Your task to perform on an android device: Open Google Maps Image 0: 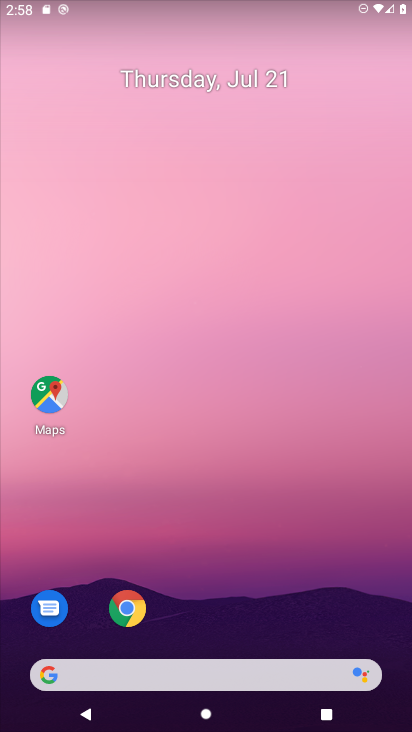
Step 0: click (52, 395)
Your task to perform on an android device: Open Google Maps Image 1: 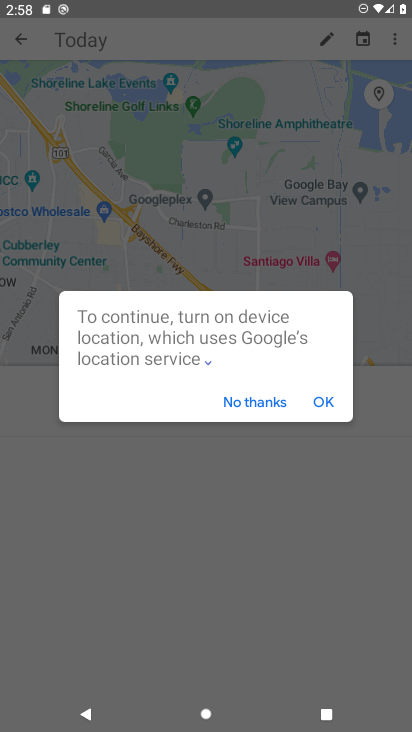
Step 1: click (28, 39)
Your task to perform on an android device: Open Google Maps Image 2: 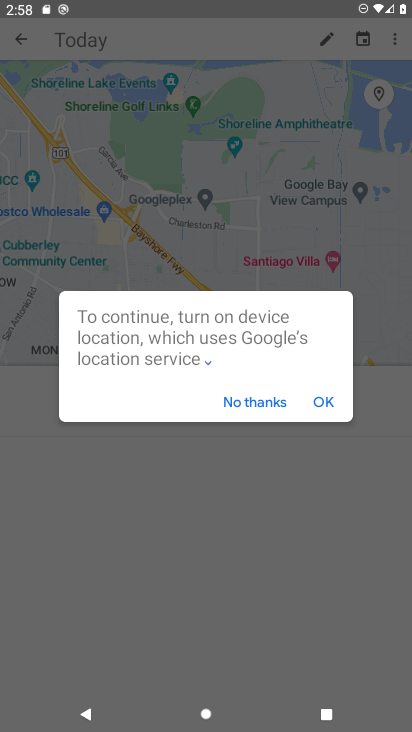
Step 2: task complete